Your task to perform on an android device: Open Chrome and go to settings Image 0: 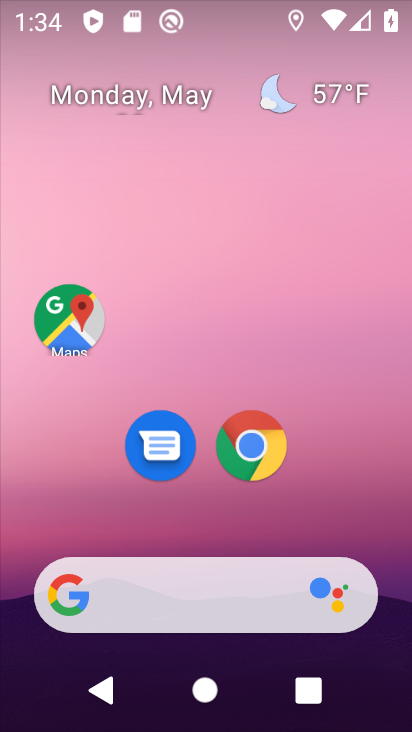
Step 0: drag from (198, 516) to (223, 58)
Your task to perform on an android device: Open Chrome and go to settings Image 1: 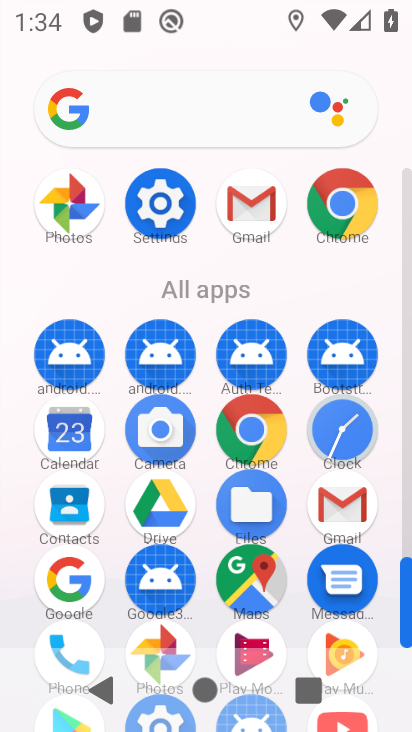
Step 1: click (337, 202)
Your task to perform on an android device: Open Chrome and go to settings Image 2: 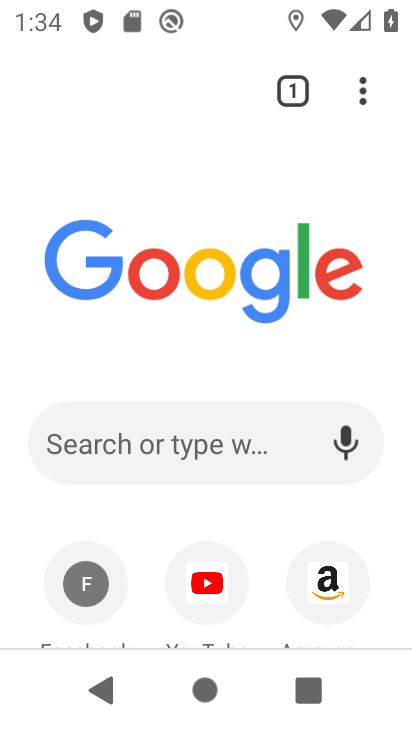
Step 2: click (350, 102)
Your task to perform on an android device: Open Chrome and go to settings Image 3: 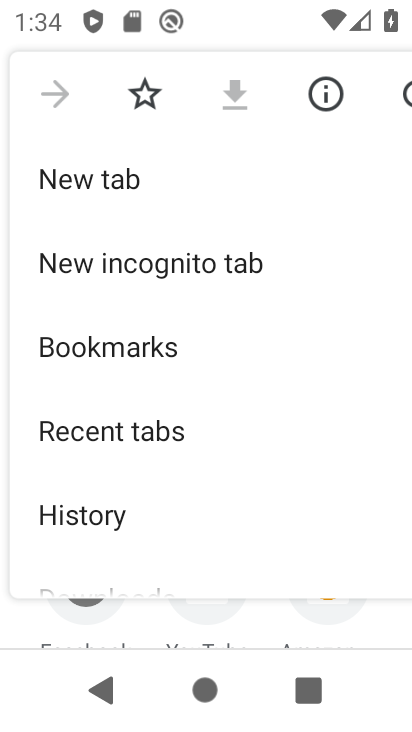
Step 3: drag from (201, 507) to (197, 134)
Your task to perform on an android device: Open Chrome and go to settings Image 4: 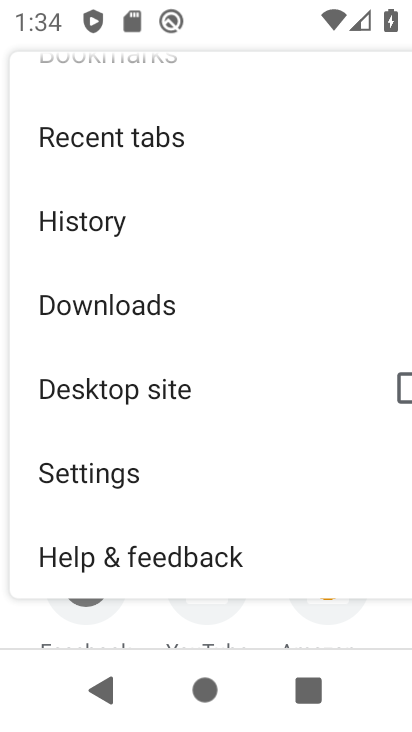
Step 4: click (102, 462)
Your task to perform on an android device: Open Chrome and go to settings Image 5: 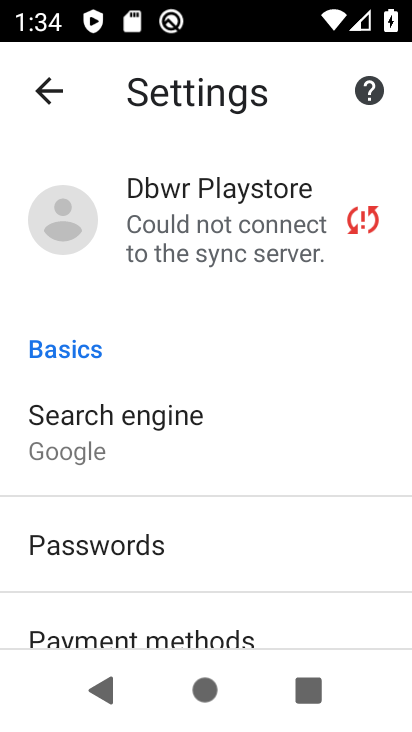
Step 5: task complete